Your task to perform on an android device: turn on showing notifications on the lock screen Image 0: 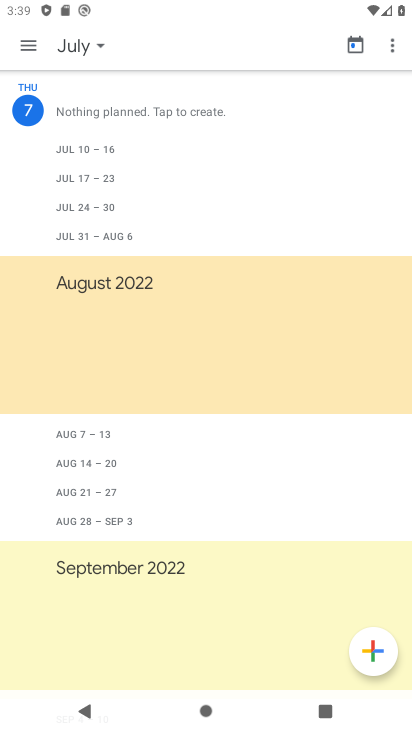
Step 0: press home button
Your task to perform on an android device: turn on showing notifications on the lock screen Image 1: 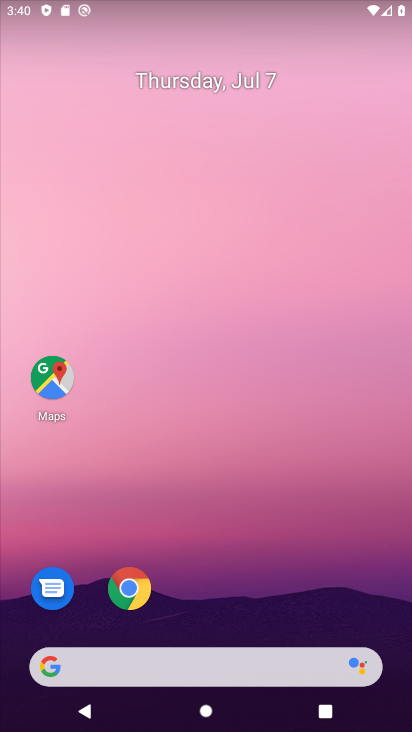
Step 1: drag from (251, 587) to (196, 178)
Your task to perform on an android device: turn on showing notifications on the lock screen Image 2: 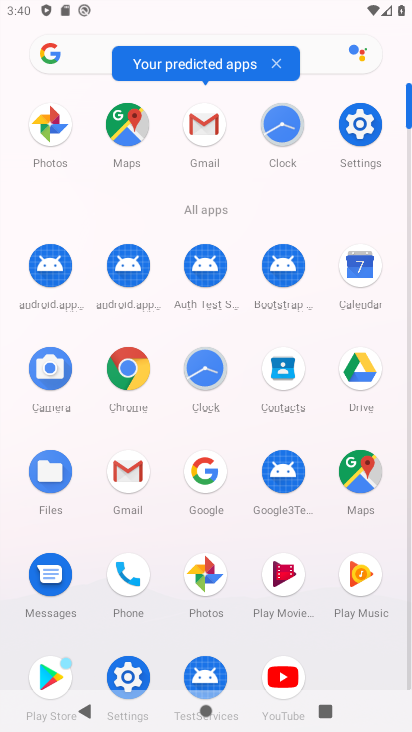
Step 2: click (350, 132)
Your task to perform on an android device: turn on showing notifications on the lock screen Image 3: 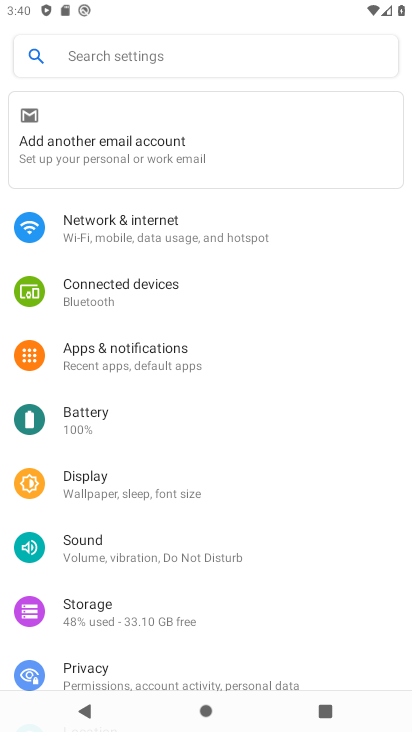
Step 3: click (133, 360)
Your task to perform on an android device: turn on showing notifications on the lock screen Image 4: 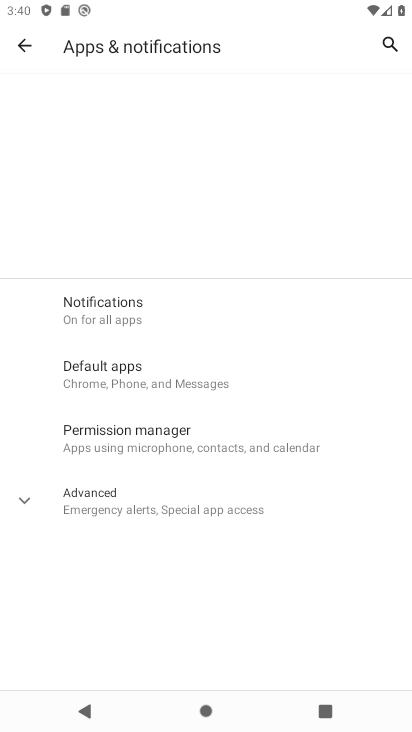
Step 4: click (101, 309)
Your task to perform on an android device: turn on showing notifications on the lock screen Image 5: 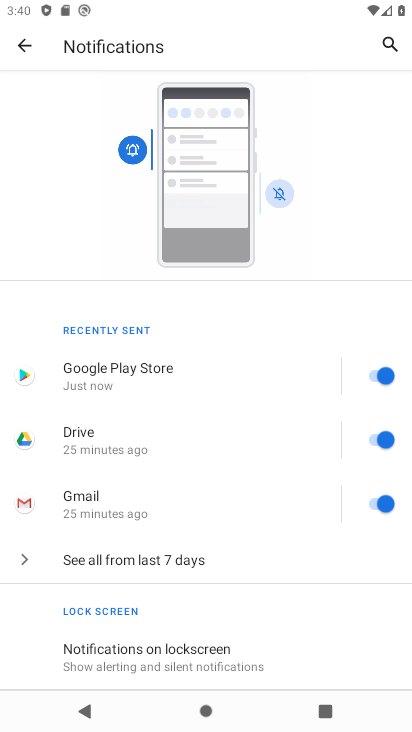
Step 5: drag from (298, 635) to (318, 160)
Your task to perform on an android device: turn on showing notifications on the lock screen Image 6: 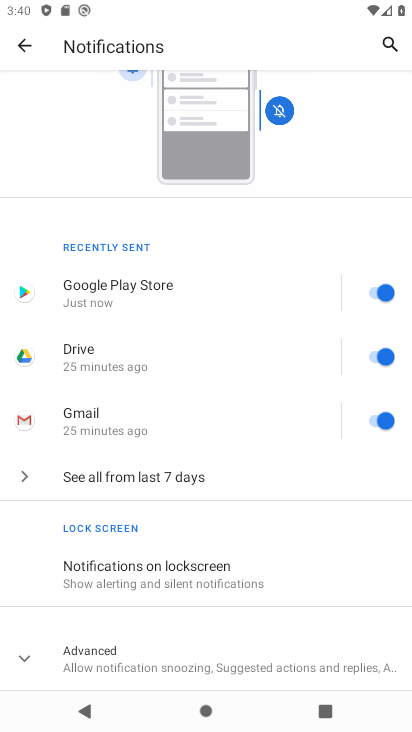
Step 6: click (135, 565)
Your task to perform on an android device: turn on showing notifications on the lock screen Image 7: 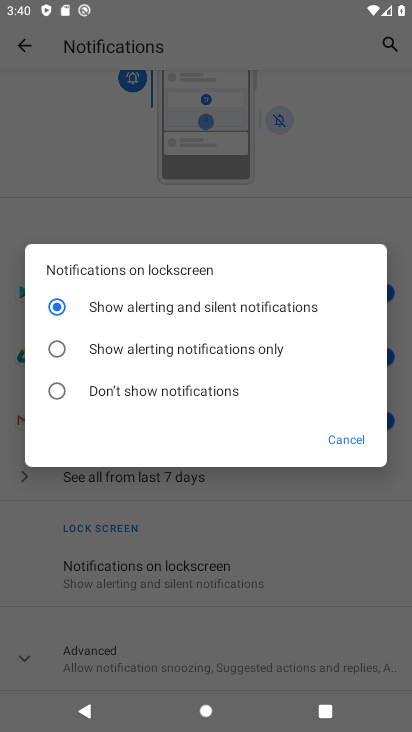
Step 7: task complete